Your task to perform on an android device: Open the Play Movies app and select the watchlist tab. Image 0: 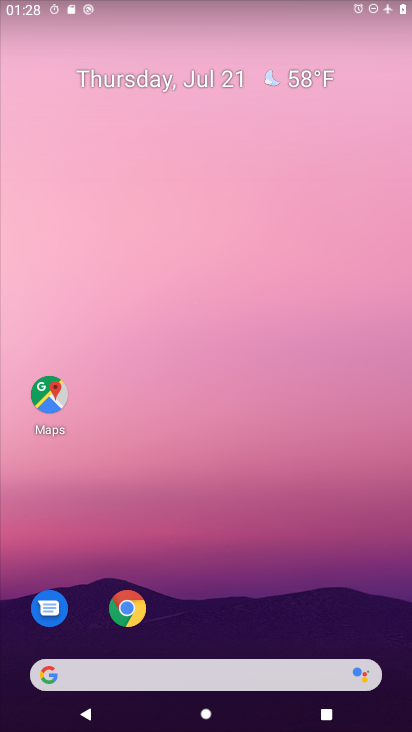
Step 0: press home button
Your task to perform on an android device: Open the Play Movies app and select the watchlist tab. Image 1: 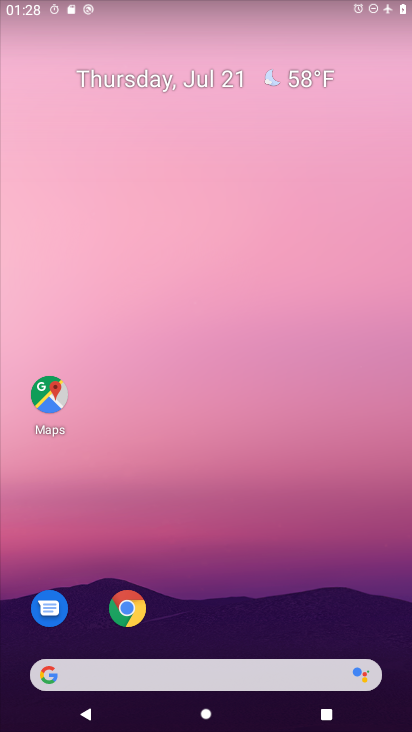
Step 1: drag from (240, 640) to (30, 0)
Your task to perform on an android device: Open the Play Movies app and select the watchlist tab. Image 2: 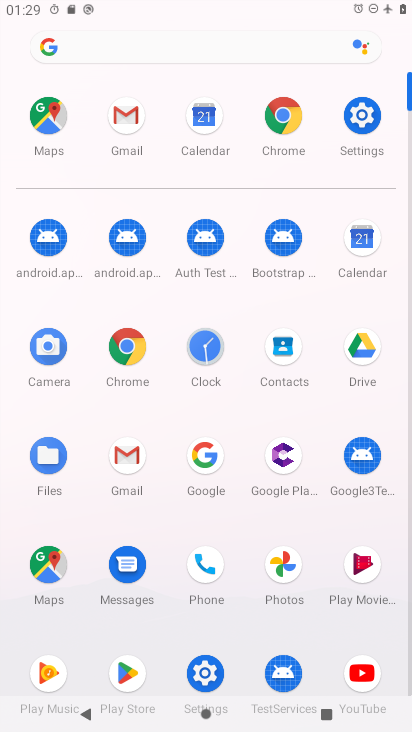
Step 2: click (346, 559)
Your task to perform on an android device: Open the Play Movies app and select the watchlist tab. Image 3: 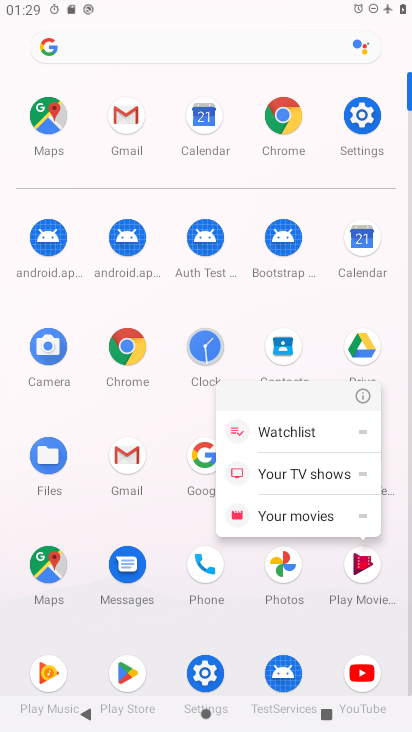
Step 3: click (357, 557)
Your task to perform on an android device: Open the Play Movies app and select the watchlist tab. Image 4: 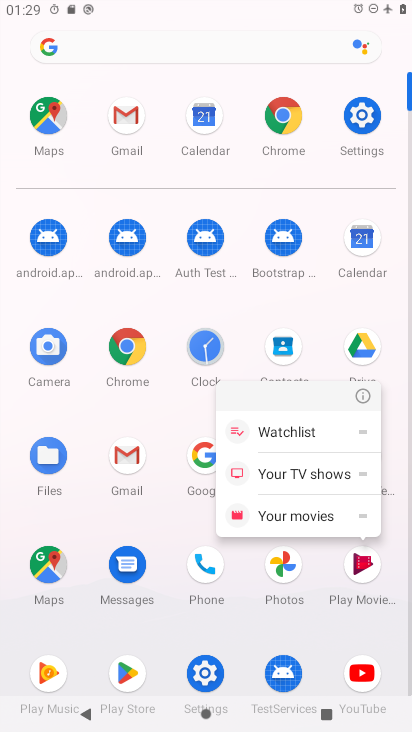
Step 4: click (367, 576)
Your task to perform on an android device: Open the Play Movies app and select the watchlist tab. Image 5: 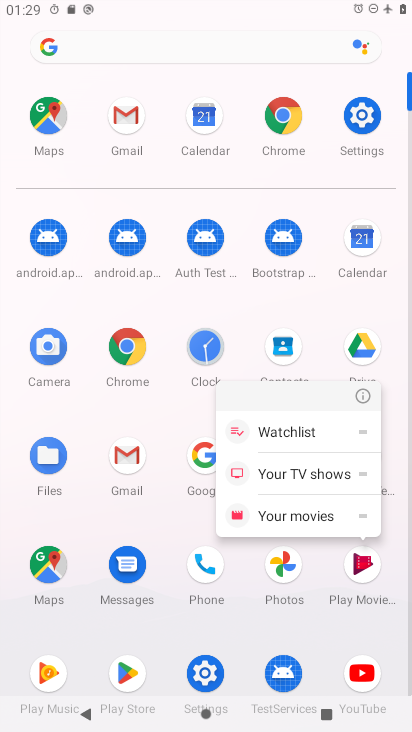
Step 5: click (367, 576)
Your task to perform on an android device: Open the Play Movies app and select the watchlist tab. Image 6: 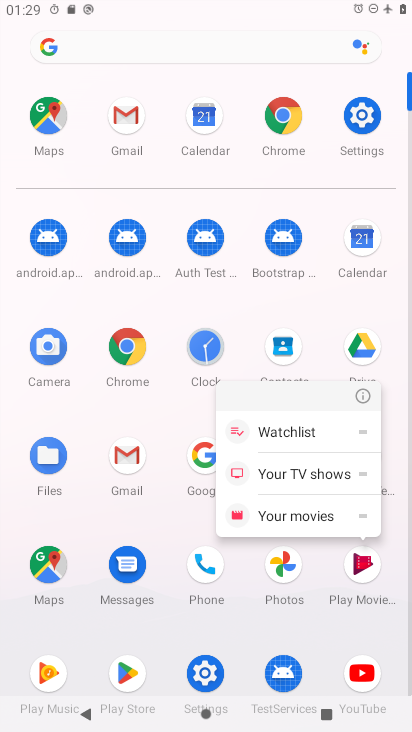
Step 6: click (362, 570)
Your task to perform on an android device: Open the Play Movies app and select the watchlist tab. Image 7: 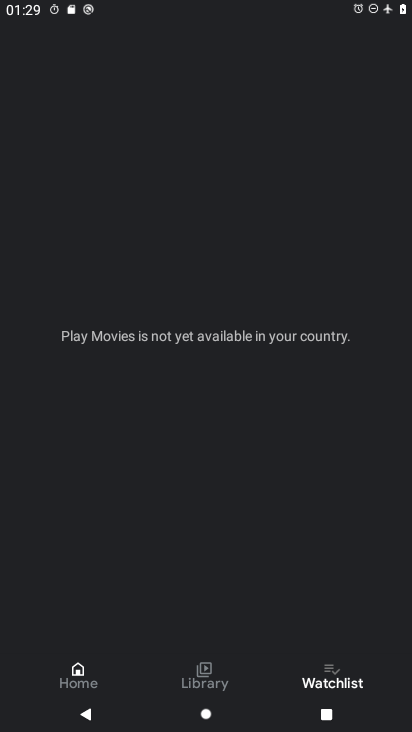
Step 7: click (335, 675)
Your task to perform on an android device: Open the Play Movies app and select the watchlist tab. Image 8: 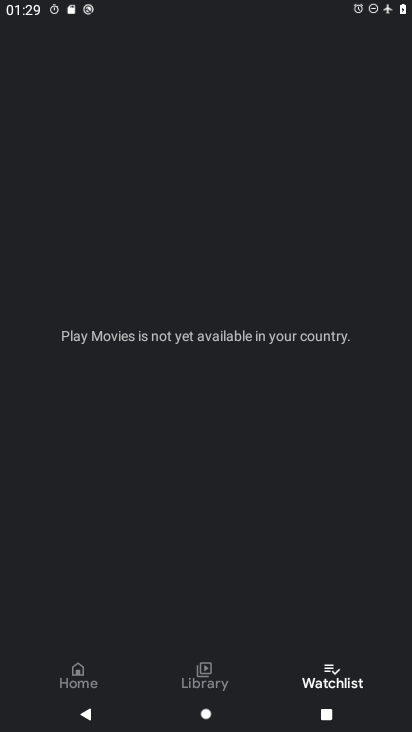
Step 8: task complete